Your task to perform on an android device: What's the weather today? Image 0: 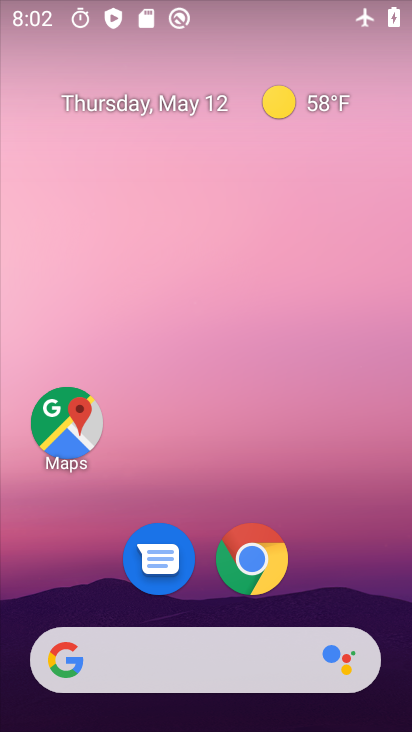
Step 0: drag from (320, 569) to (231, 134)
Your task to perform on an android device: What's the weather today? Image 1: 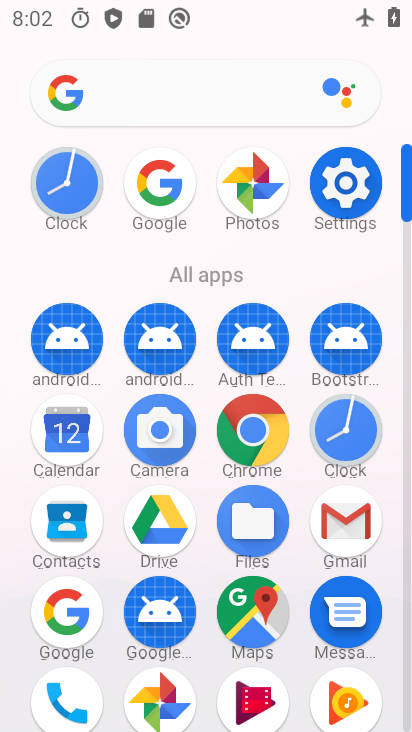
Step 1: click (154, 181)
Your task to perform on an android device: What's the weather today? Image 2: 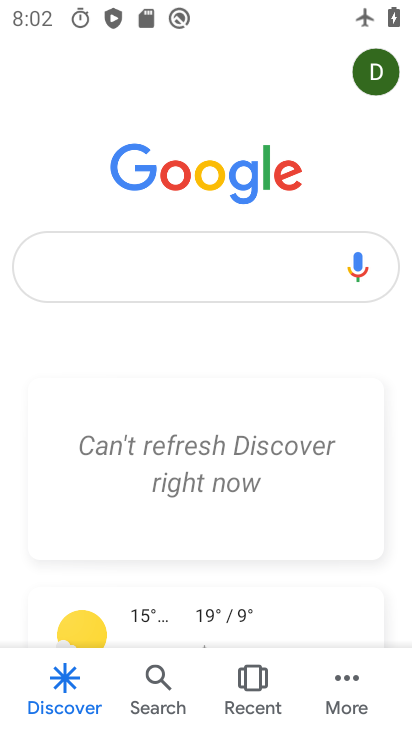
Step 2: click (132, 257)
Your task to perform on an android device: What's the weather today? Image 3: 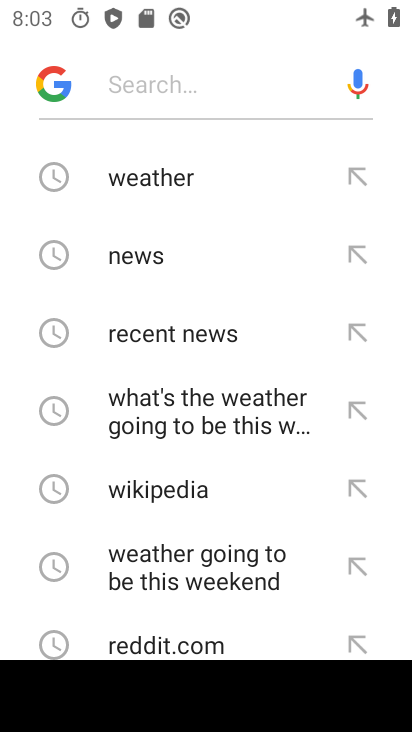
Step 3: click (157, 186)
Your task to perform on an android device: What's the weather today? Image 4: 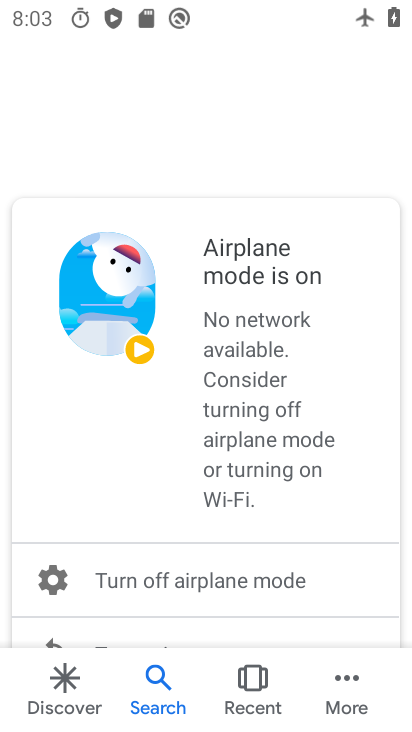
Step 4: task complete